Your task to perform on an android device: star an email in the gmail app Image 0: 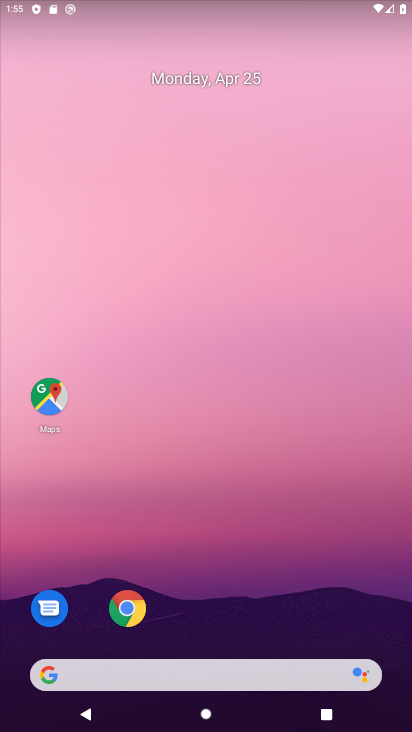
Step 0: drag from (198, 638) to (211, 233)
Your task to perform on an android device: star an email in the gmail app Image 1: 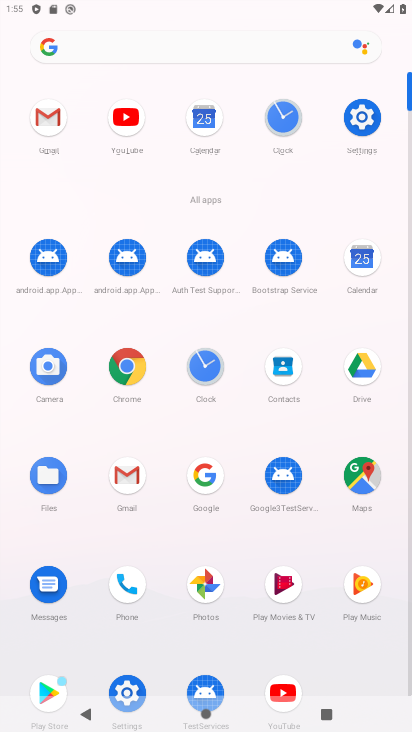
Step 1: click (47, 138)
Your task to perform on an android device: star an email in the gmail app Image 2: 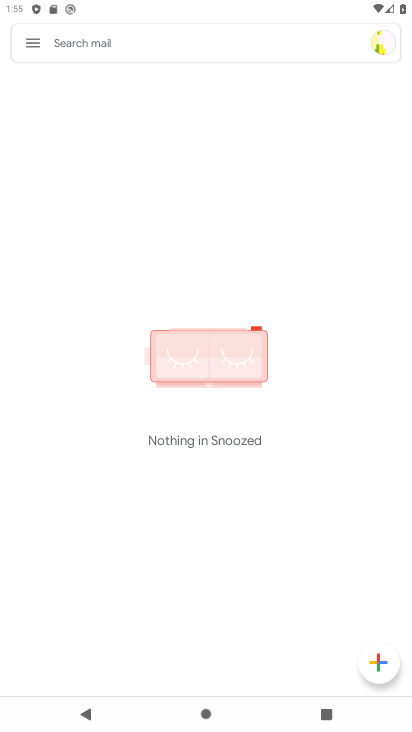
Step 2: task complete